Your task to perform on an android device: change your default location settings in chrome Image 0: 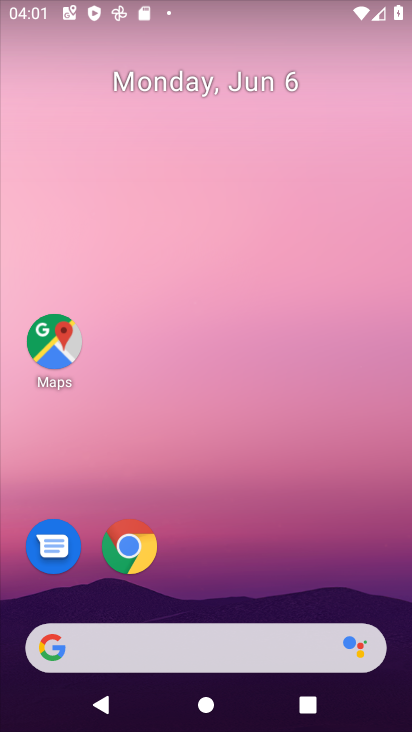
Step 0: click (123, 557)
Your task to perform on an android device: change your default location settings in chrome Image 1: 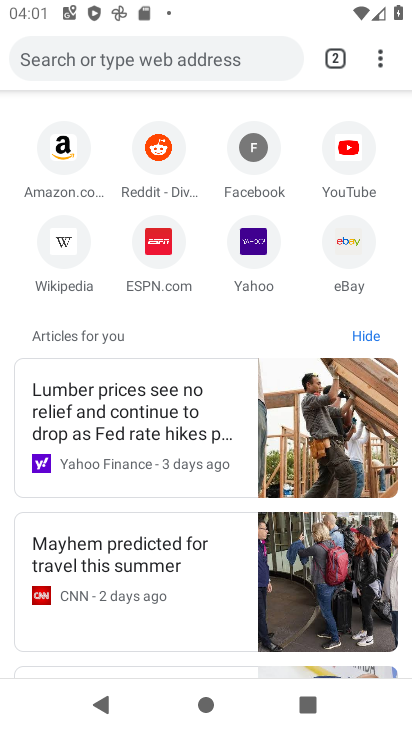
Step 1: click (396, 54)
Your task to perform on an android device: change your default location settings in chrome Image 2: 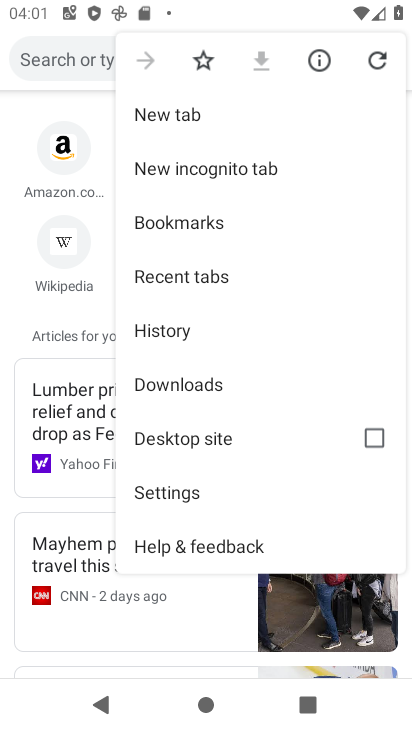
Step 2: click (164, 339)
Your task to perform on an android device: change your default location settings in chrome Image 3: 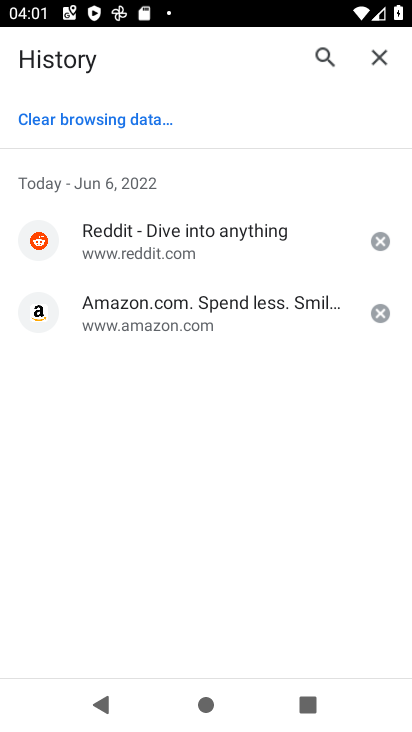
Step 3: click (89, 108)
Your task to perform on an android device: change your default location settings in chrome Image 4: 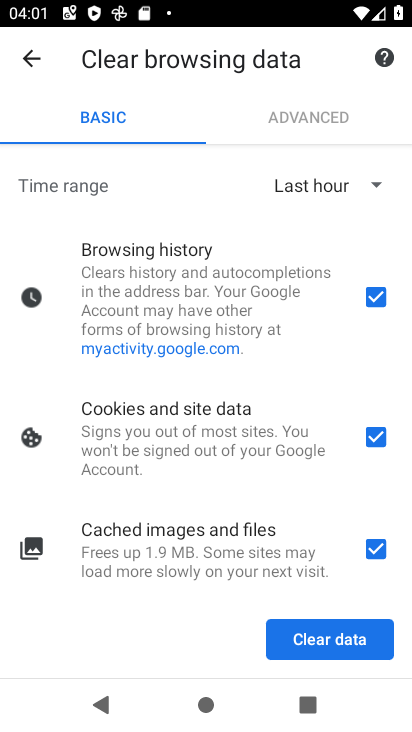
Step 4: click (317, 625)
Your task to perform on an android device: change your default location settings in chrome Image 5: 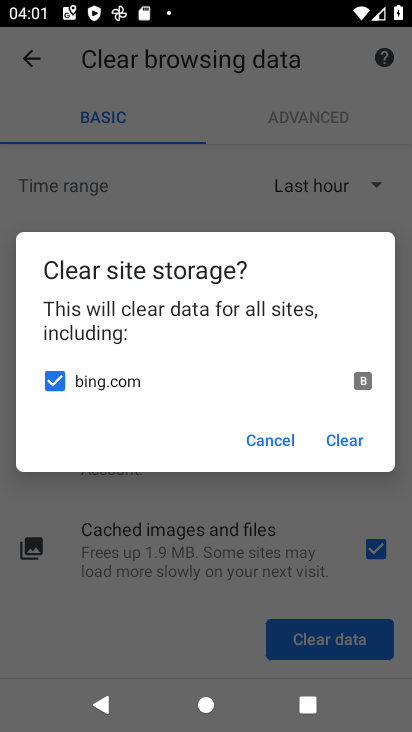
Step 5: click (312, 453)
Your task to perform on an android device: change your default location settings in chrome Image 6: 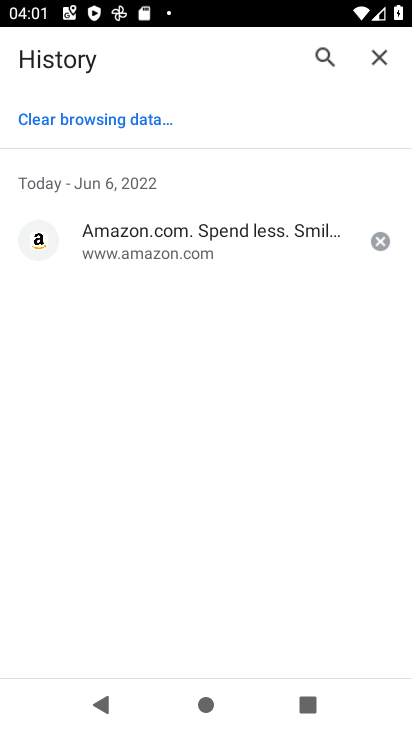
Step 6: task complete